Your task to perform on an android device: Open Google Image 0: 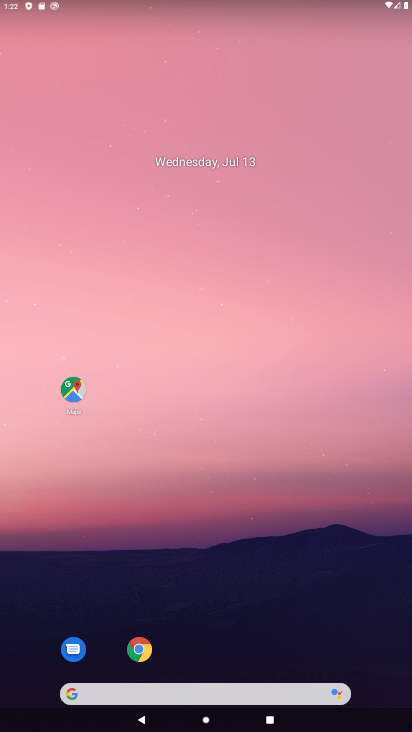
Step 0: drag from (197, 690) to (290, 161)
Your task to perform on an android device: Open Google Image 1: 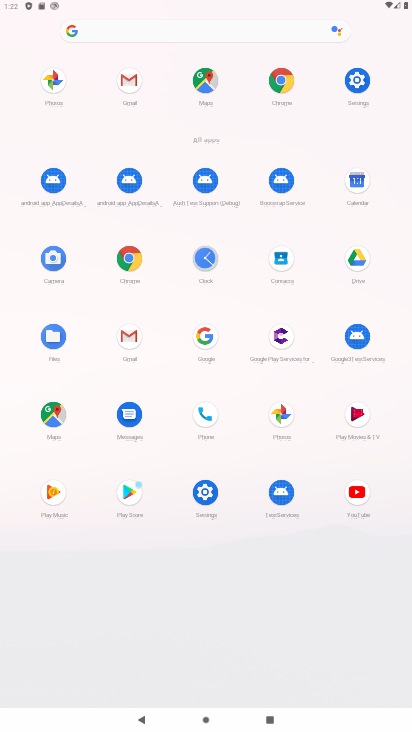
Step 1: click (213, 332)
Your task to perform on an android device: Open Google Image 2: 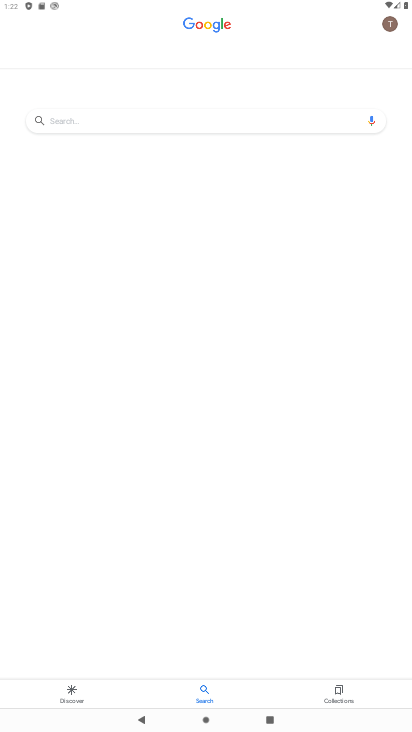
Step 2: task complete